Your task to perform on an android device: open sync settings in chrome Image 0: 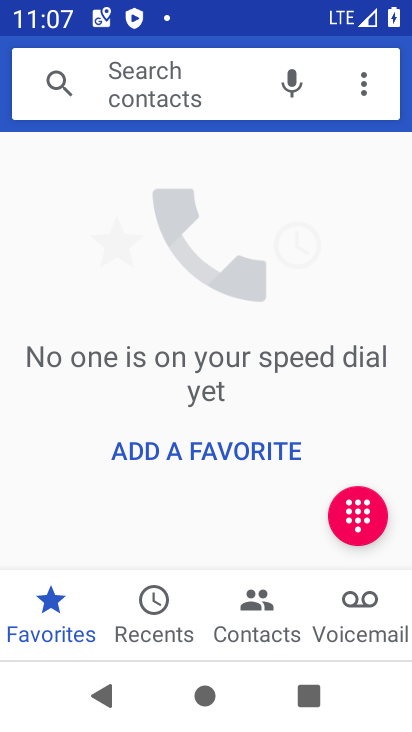
Step 0: press home button
Your task to perform on an android device: open sync settings in chrome Image 1: 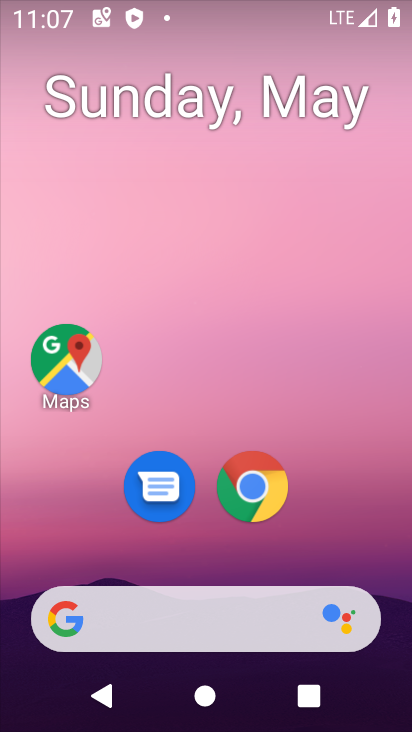
Step 1: click (253, 488)
Your task to perform on an android device: open sync settings in chrome Image 2: 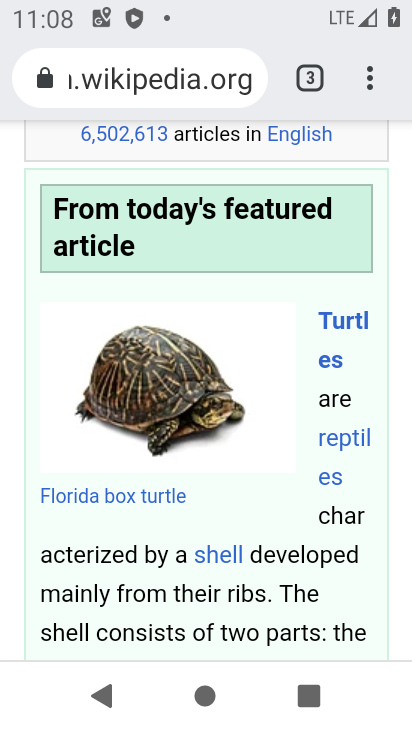
Step 2: click (364, 86)
Your task to perform on an android device: open sync settings in chrome Image 3: 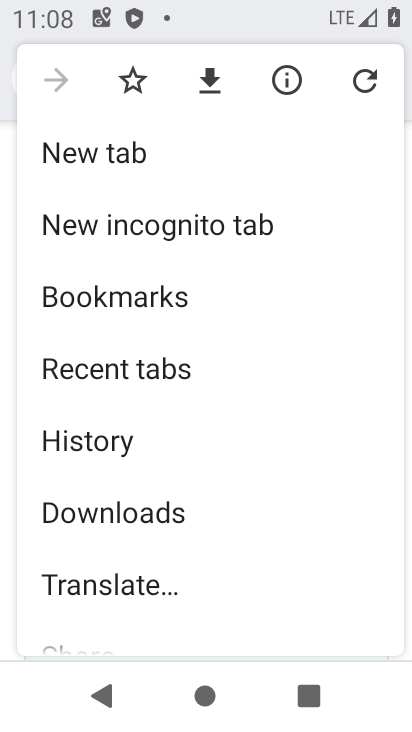
Step 3: drag from (154, 548) to (151, 291)
Your task to perform on an android device: open sync settings in chrome Image 4: 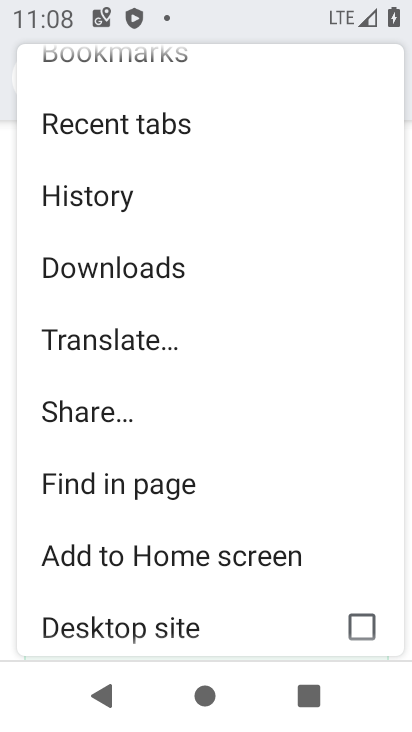
Step 4: drag from (181, 612) to (187, 362)
Your task to perform on an android device: open sync settings in chrome Image 5: 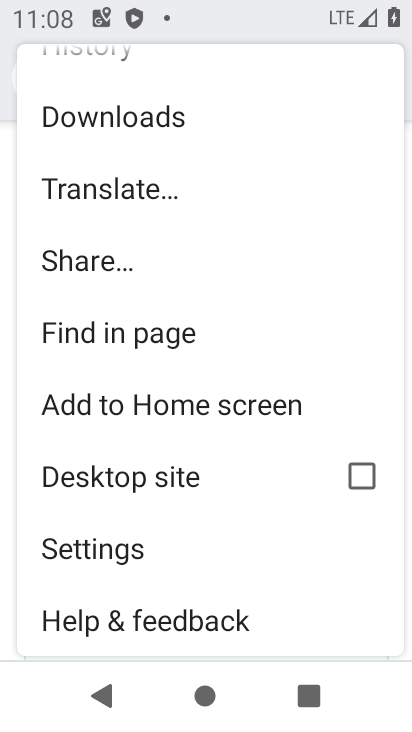
Step 5: click (101, 552)
Your task to perform on an android device: open sync settings in chrome Image 6: 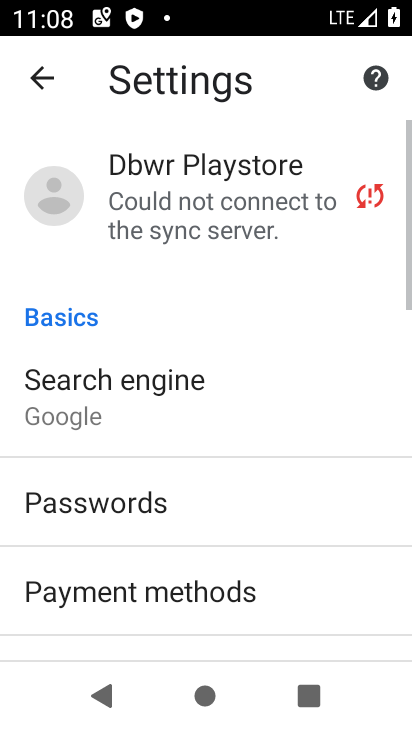
Step 6: drag from (109, 563) to (143, 279)
Your task to perform on an android device: open sync settings in chrome Image 7: 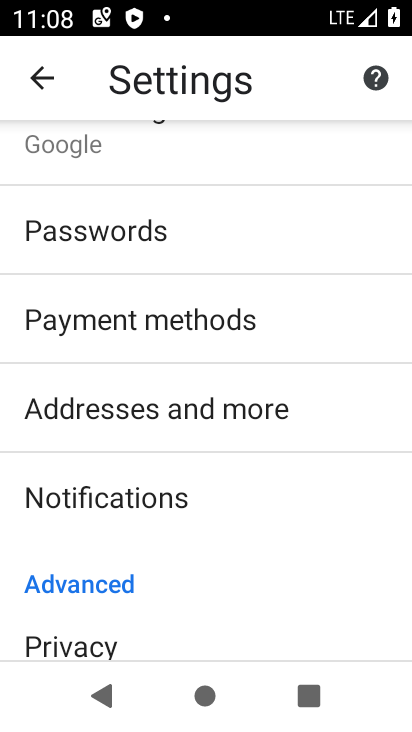
Step 7: drag from (146, 585) to (184, 334)
Your task to perform on an android device: open sync settings in chrome Image 8: 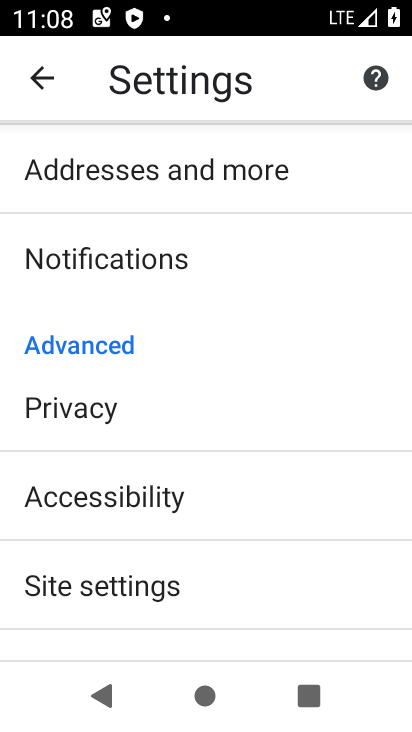
Step 8: drag from (149, 590) to (159, 389)
Your task to perform on an android device: open sync settings in chrome Image 9: 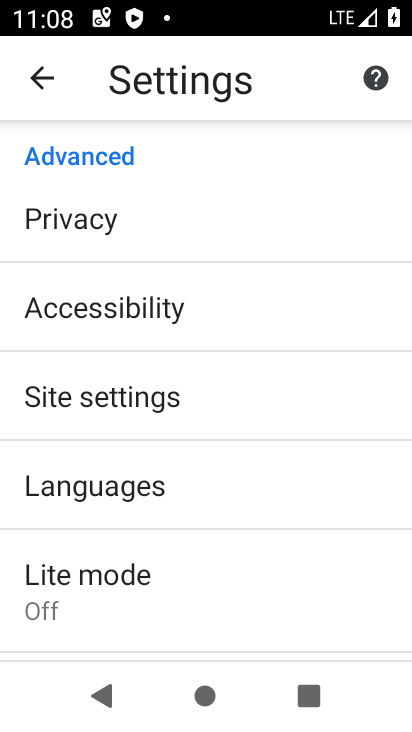
Step 9: drag from (144, 629) to (149, 403)
Your task to perform on an android device: open sync settings in chrome Image 10: 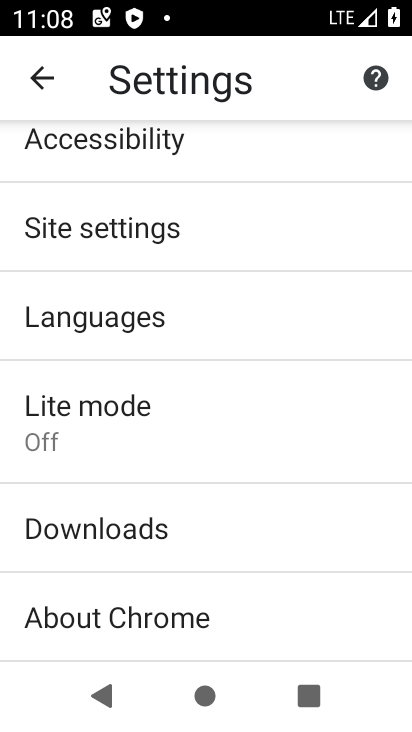
Step 10: drag from (163, 240) to (201, 631)
Your task to perform on an android device: open sync settings in chrome Image 11: 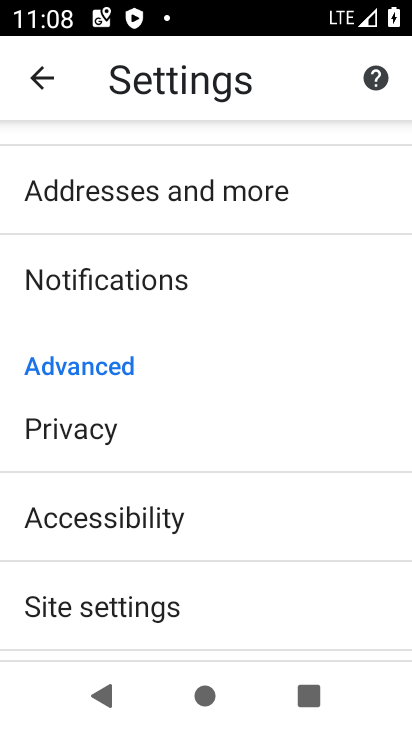
Step 11: drag from (241, 376) to (225, 637)
Your task to perform on an android device: open sync settings in chrome Image 12: 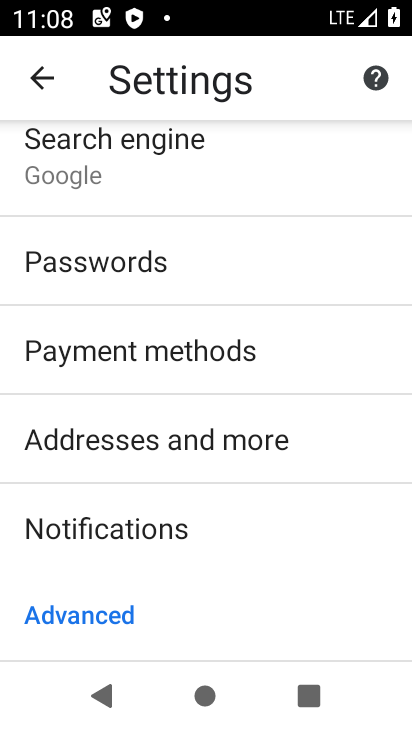
Step 12: drag from (253, 255) to (246, 514)
Your task to perform on an android device: open sync settings in chrome Image 13: 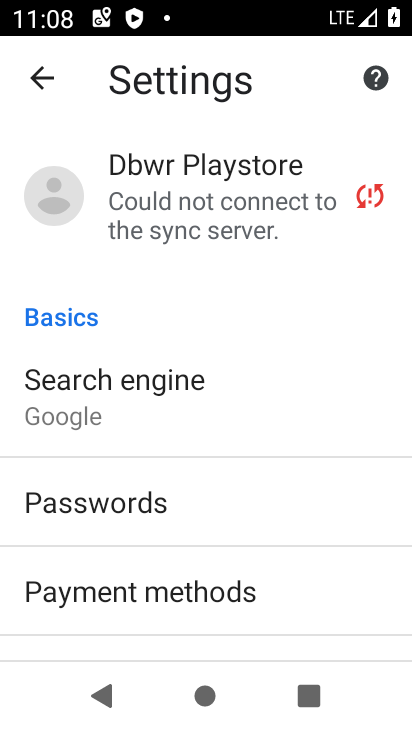
Step 13: click (217, 220)
Your task to perform on an android device: open sync settings in chrome Image 14: 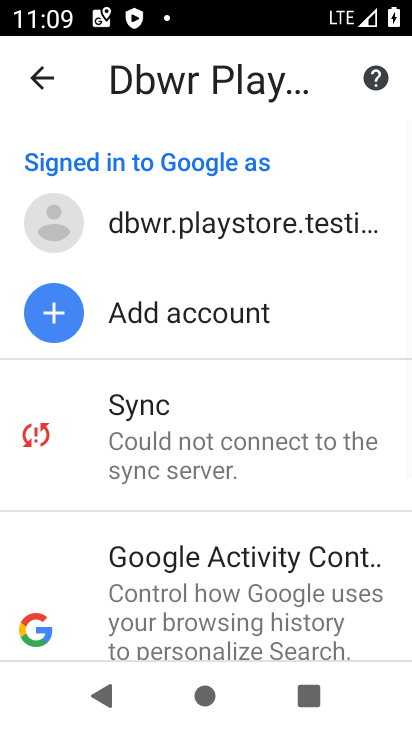
Step 14: click (189, 447)
Your task to perform on an android device: open sync settings in chrome Image 15: 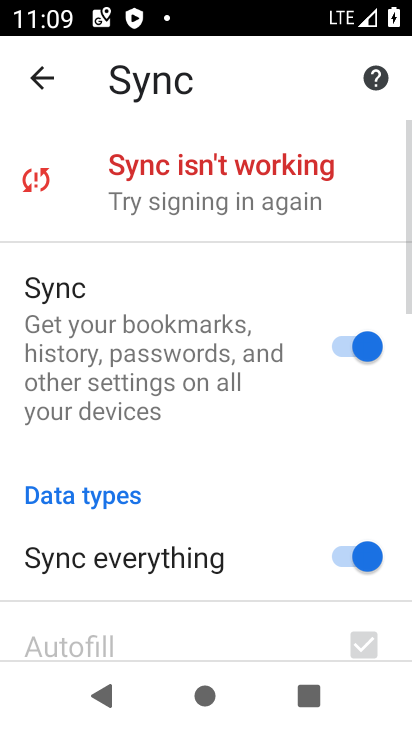
Step 15: task complete